Your task to perform on an android device: turn vacation reply on in the gmail app Image 0: 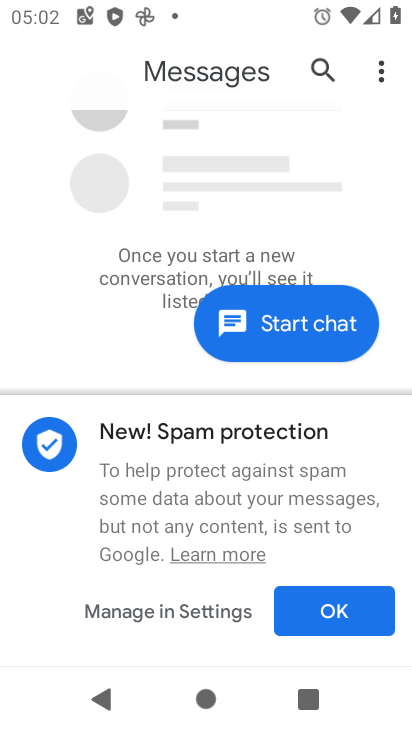
Step 0: press home button
Your task to perform on an android device: turn vacation reply on in the gmail app Image 1: 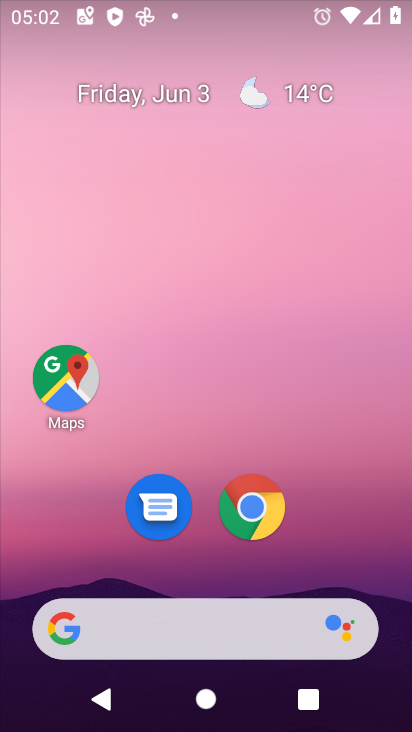
Step 1: drag from (331, 486) to (309, 57)
Your task to perform on an android device: turn vacation reply on in the gmail app Image 2: 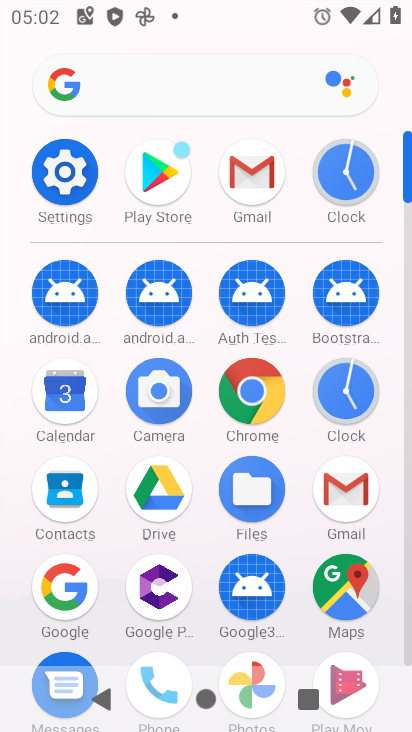
Step 2: click (254, 170)
Your task to perform on an android device: turn vacation reply on in the gmail app Image 3: 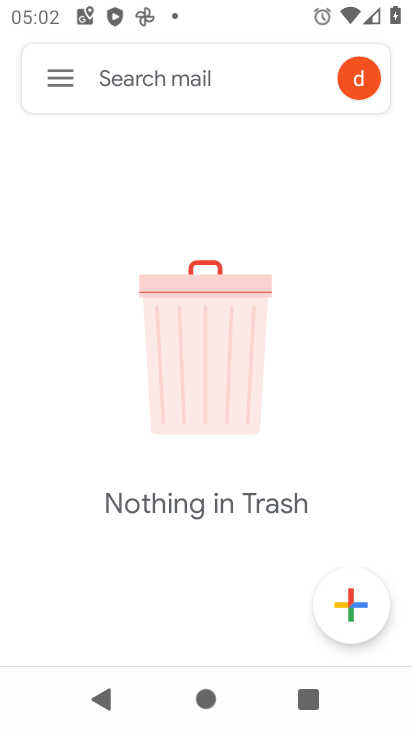
Step 3: click (65, 75)
Your task to perform on an android device: turn vacation reply on in the gmail app Image 4: 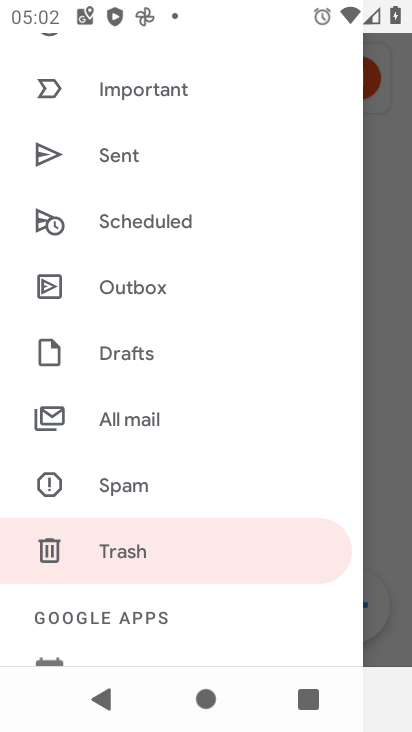
Step 4: drag from (204, 608) to (175, 5)
Your task to perform on an android device: turn vacation reply on in the gmail app Image 5: 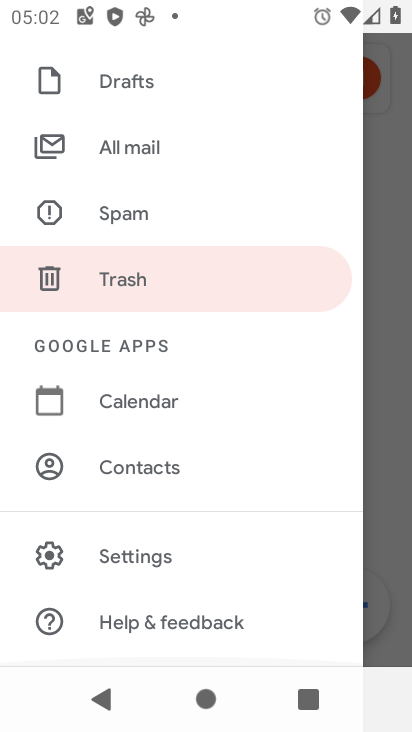
Step 5: click (150, 541)
Your task to perform on an android device: turn vacation reply on in the gmail app Image 6: 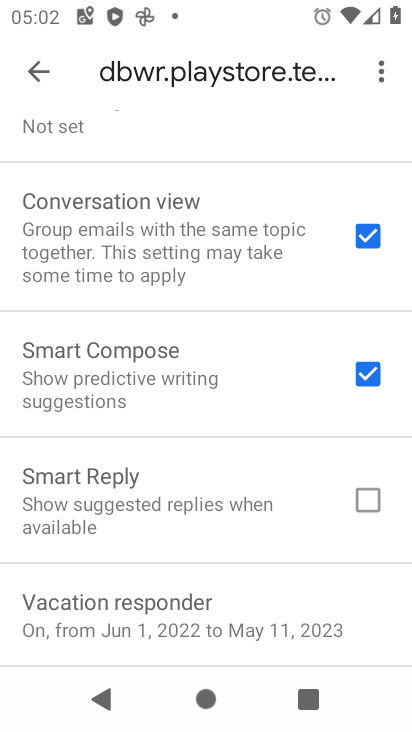
Step 6: click (288, 617)
Your task to perform on an android device: turn vacation reply on in the gmail app Image 7: 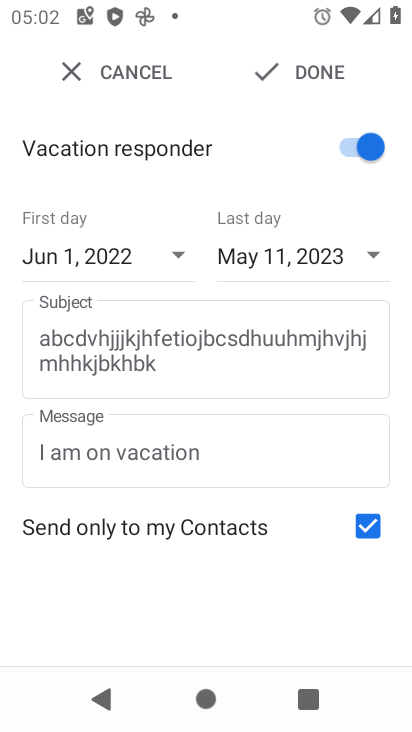
Step 7: click (313, 68)
Your task to perform on an android device: turn vacation reply on in the gmail app Image 8: 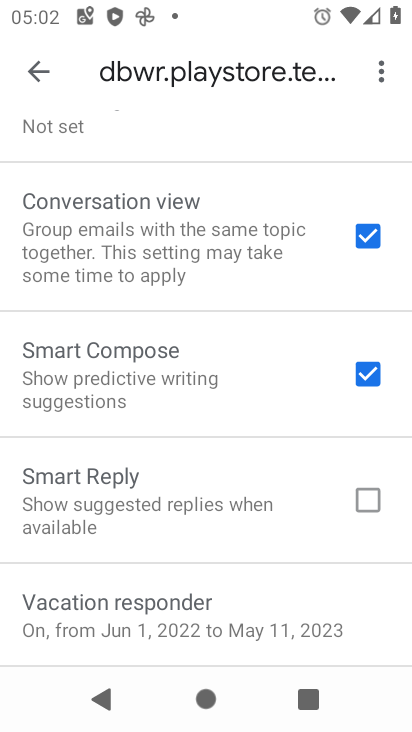
Step 8: task complete